Your task to perform on an android device: Where can I buy a nice beach blanket? Image 0: 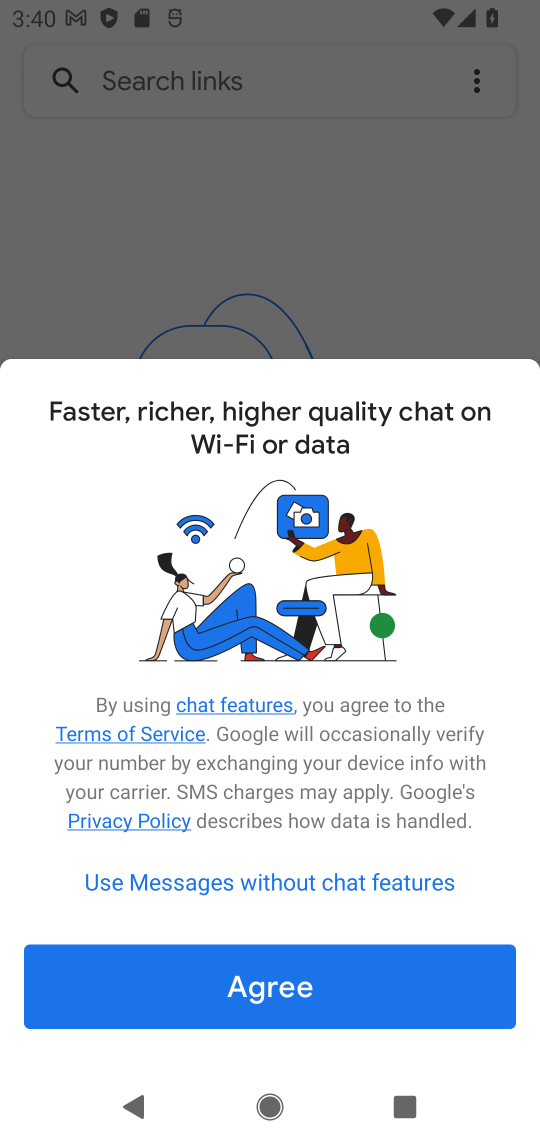
Step 0: press home button
Your task to perform on an android device: Where can I buy a nice beach blanket? Image 1: 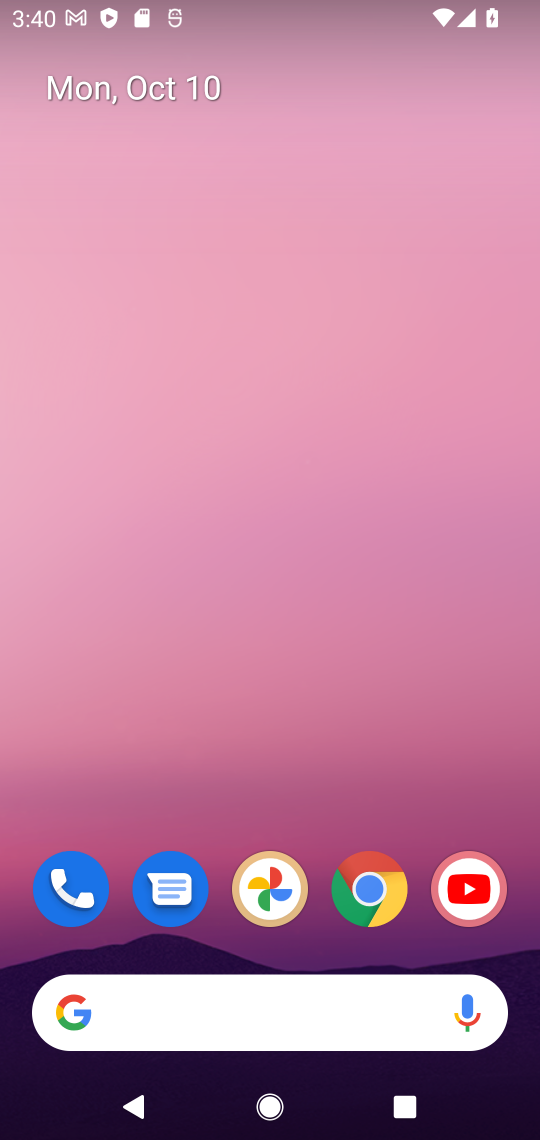
Step 1: click (369, 890)
Your task to perform on an android device: Where can I buy a nice beach blanket? Image 2: 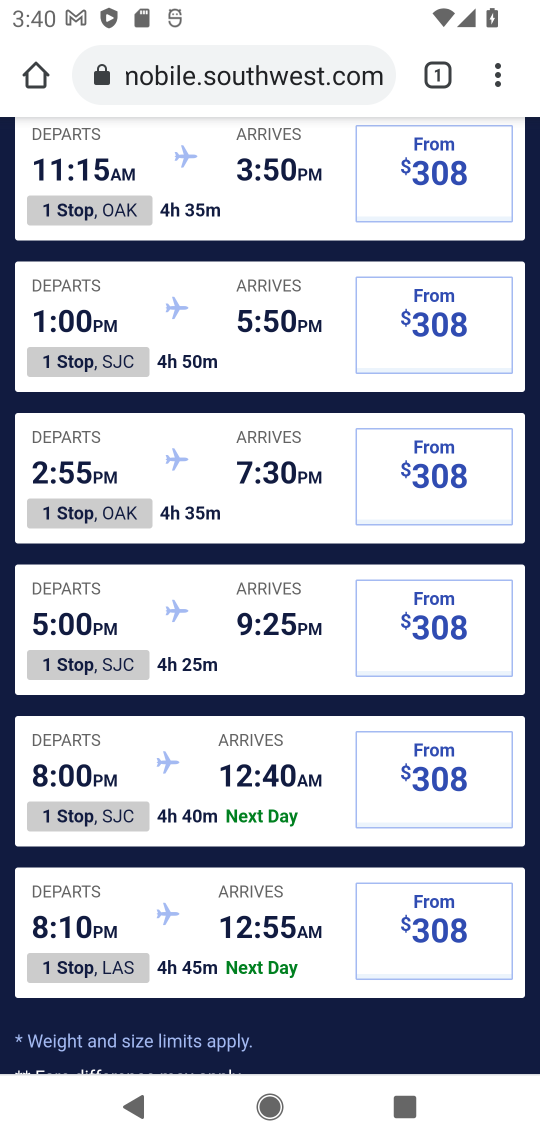
Step 2: click (207, 54)
Your task to perform on an android device: Where can I buy a nice beach blanket? Image 3: 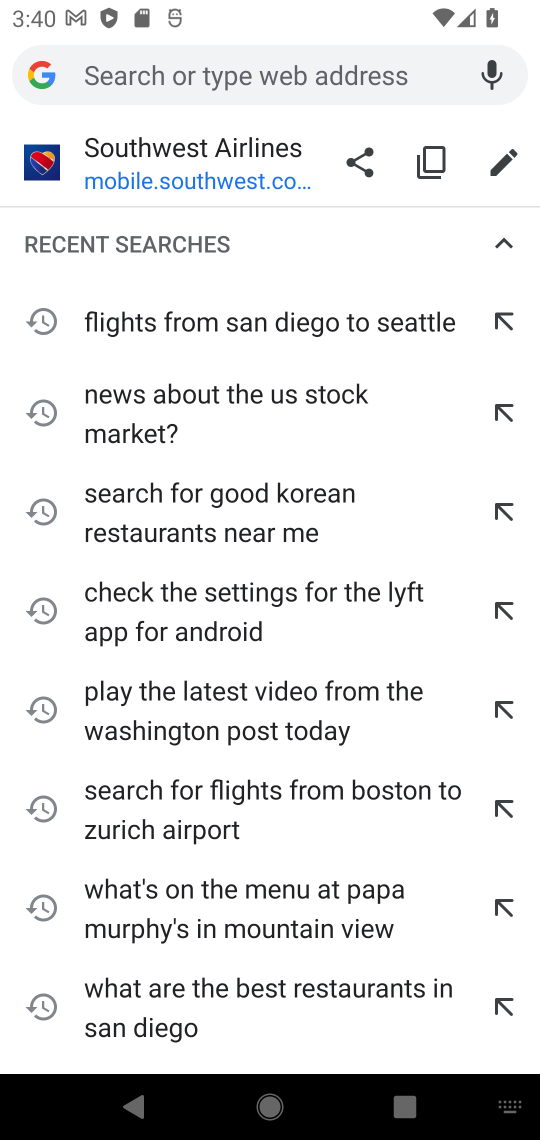
Step 3: type " nice beach blanket?"
Your task to perform on an android device: Where can I buy a nice beach blanket? Image 4: 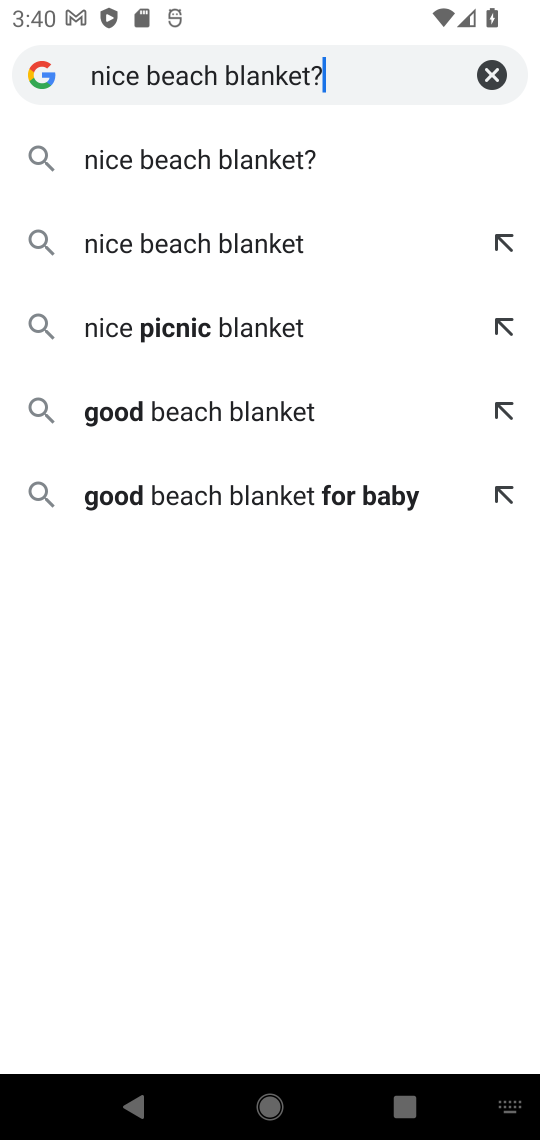
Step 4: click (138, 161)
Your task to perform on an android device: Where can I buy a nice beach blanket? Image 5: 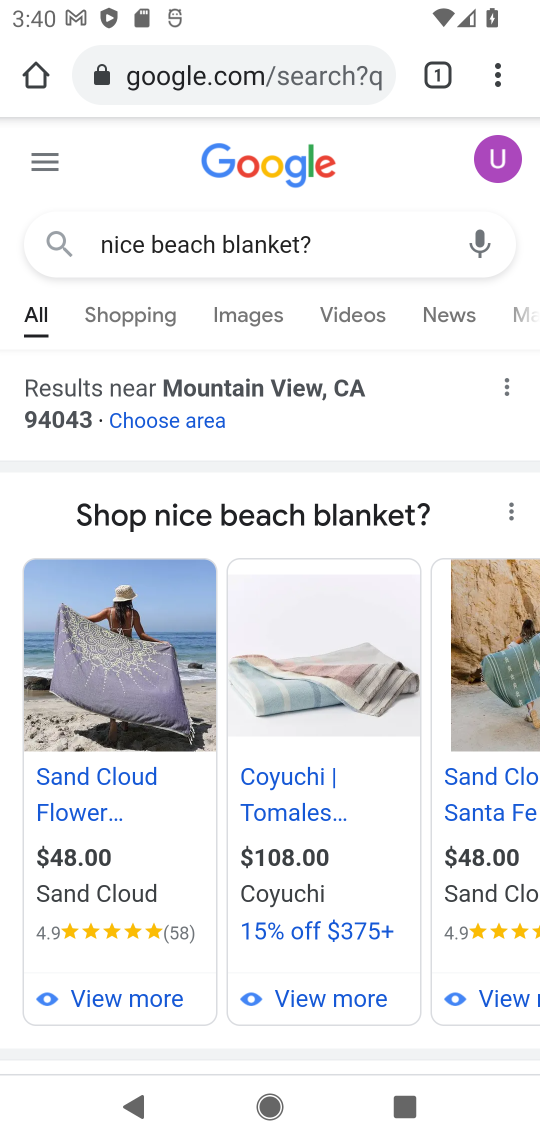
Step 5: drag from (220, 640) to (179, 73)
Your task to perform on an android device: Where can I buy a nice beach blanket? Image 6: 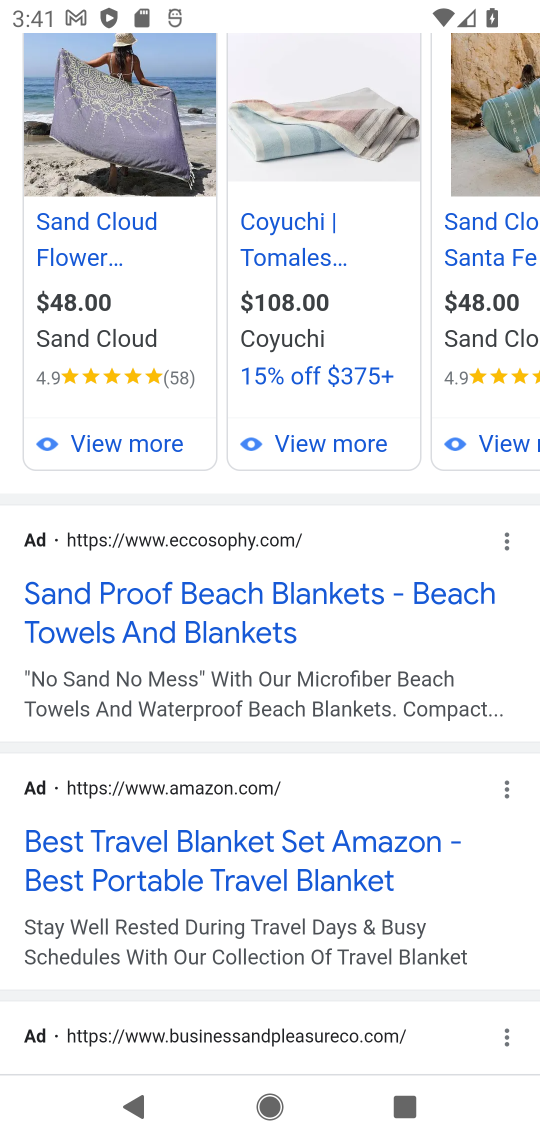
Step 6: drag from (272, 744) to (252, 179)
Your task to perform on an android device: Where can I buy a nice beach blanket? Image 7: 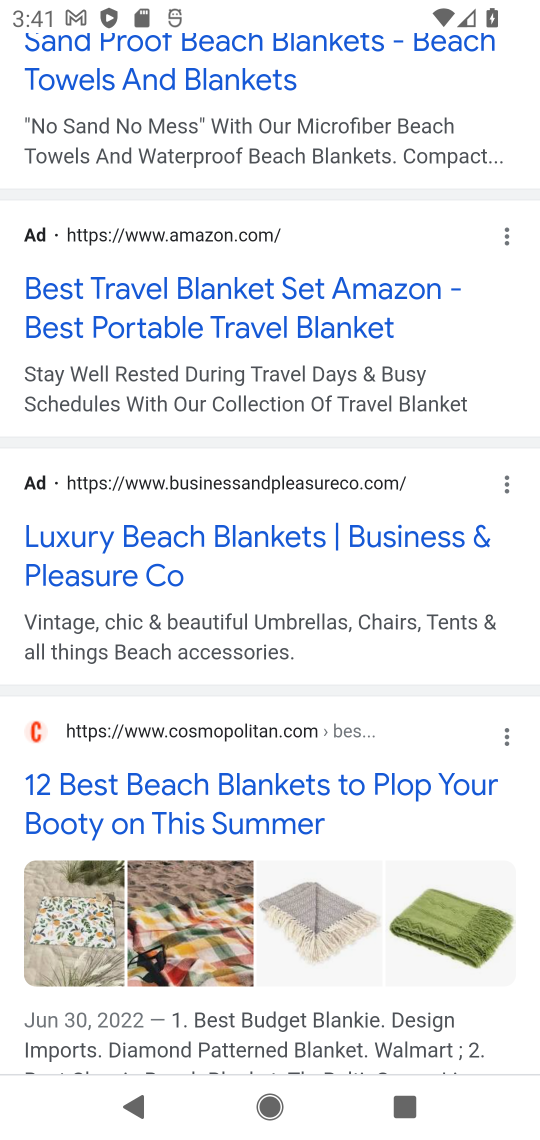
Step 7: drag from (9, 689) to (90, 70)
Your task to perform on an android device: Where can I buy a nice beach blanket? Image 8: 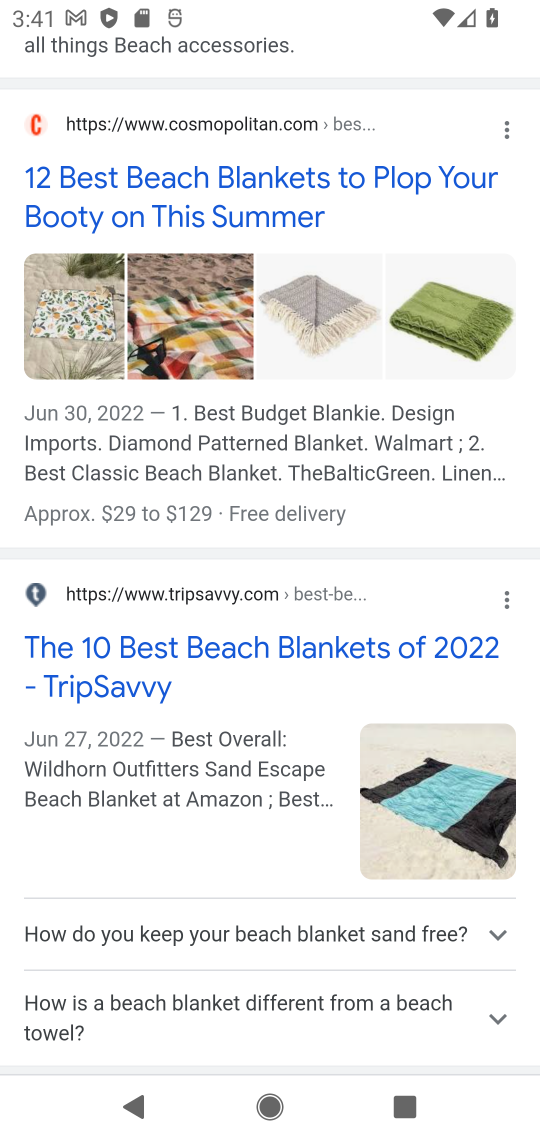
Step 8: click (125, 665)
Your task to perform on an android device: Where can I buy a nice beach blanket? Image 9: 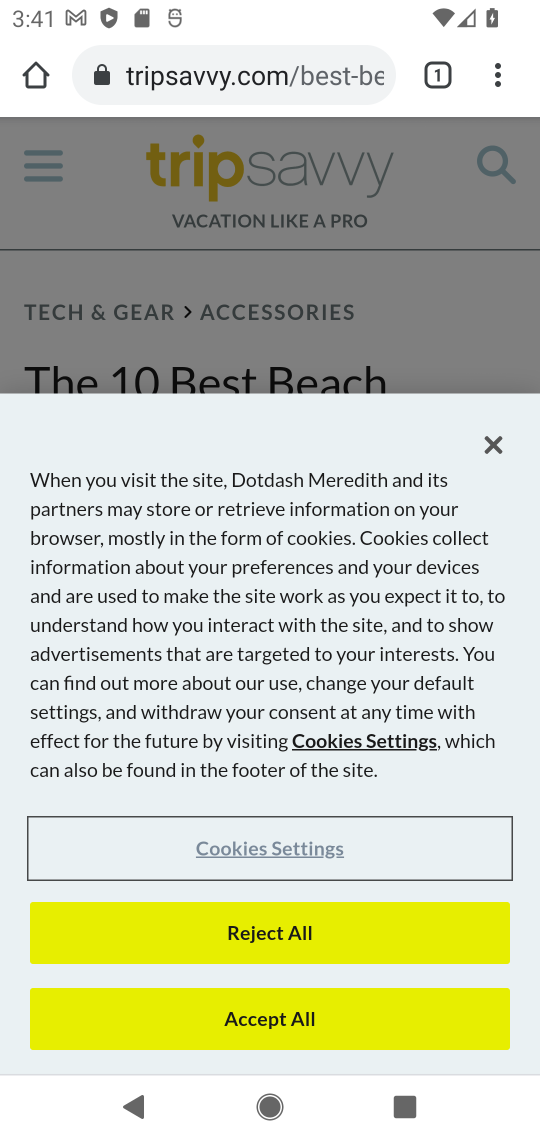
Step 9: click (273, 1018)
Your task to perform on an android device: Where can I buy a nice beach blanket? Image 10: 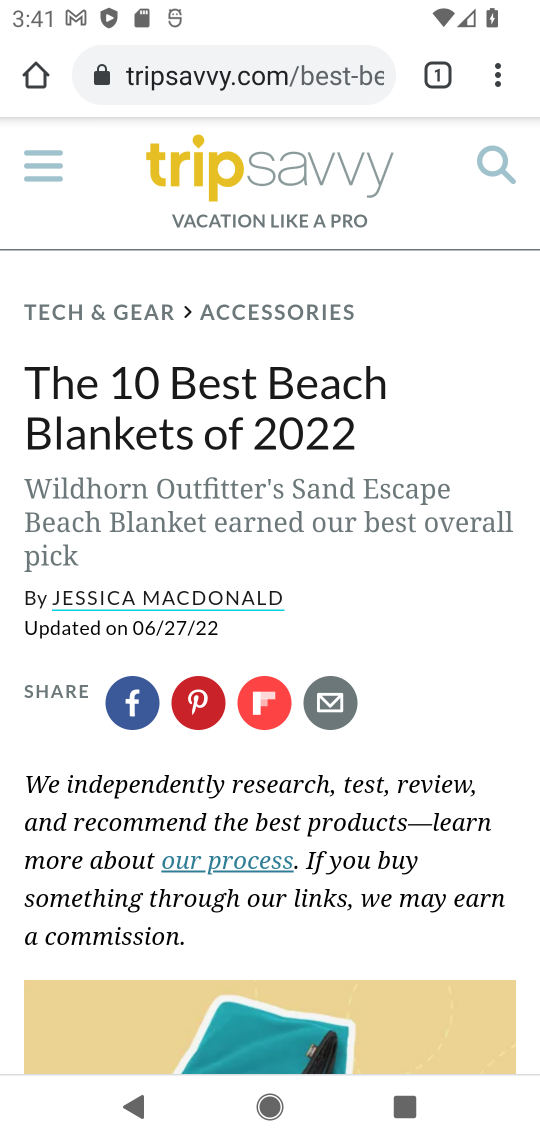
Step 10: press back button
Your task to perform on an android device: Where can I buy a nice beach blanket? Image 11: 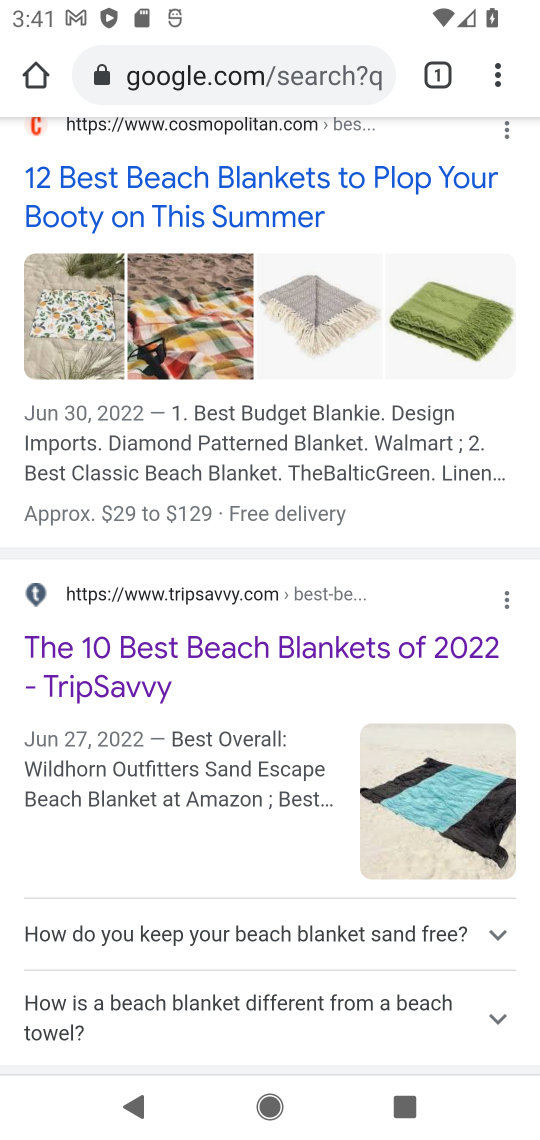
Step 11: drag from (301, 344) to (244, 831)
Your task to perform on an android device: Where can I buy a nice beach blanket? Image 12: 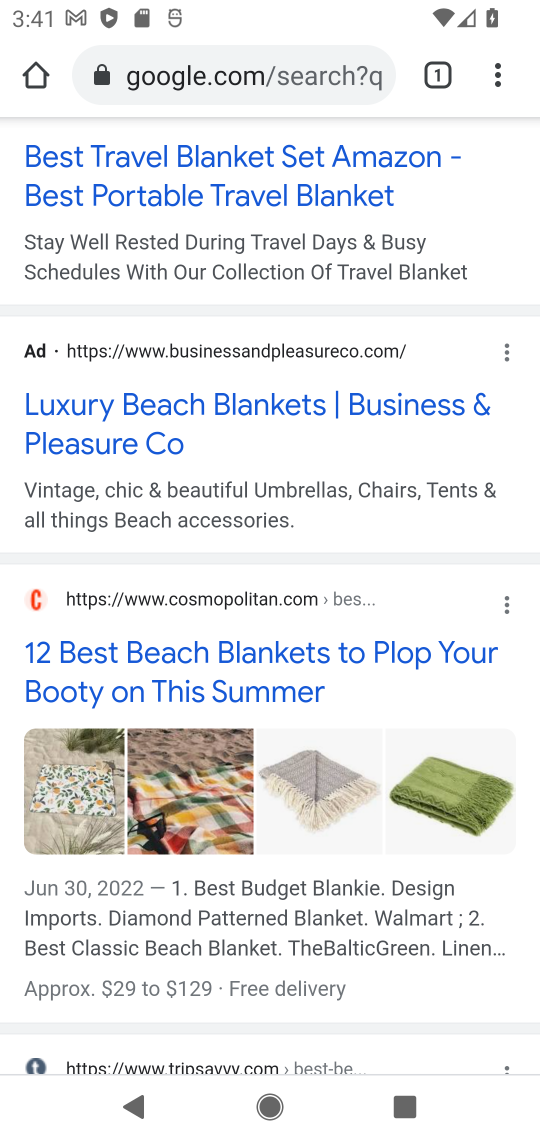
Step 12: drag from (252, 230) to (208, 772)
Your task to perform on an android device: Where can I buy a nice beach blanket? Image 13: 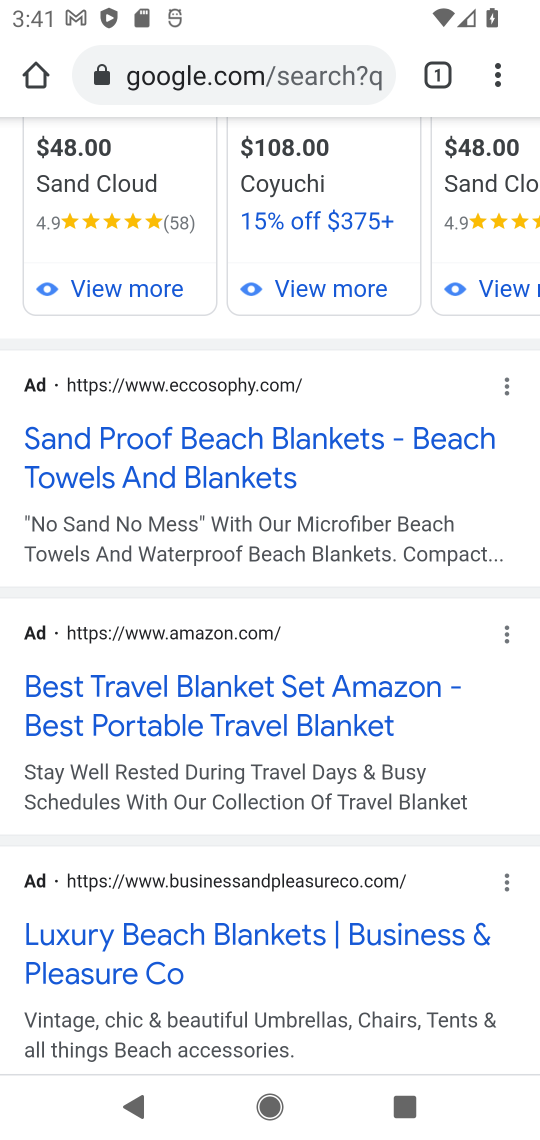
Step 13: drag from (199, 255) to (186, 762)
Your task to perform on an android device: Where can I buy a nice beach blanket? Image 14: 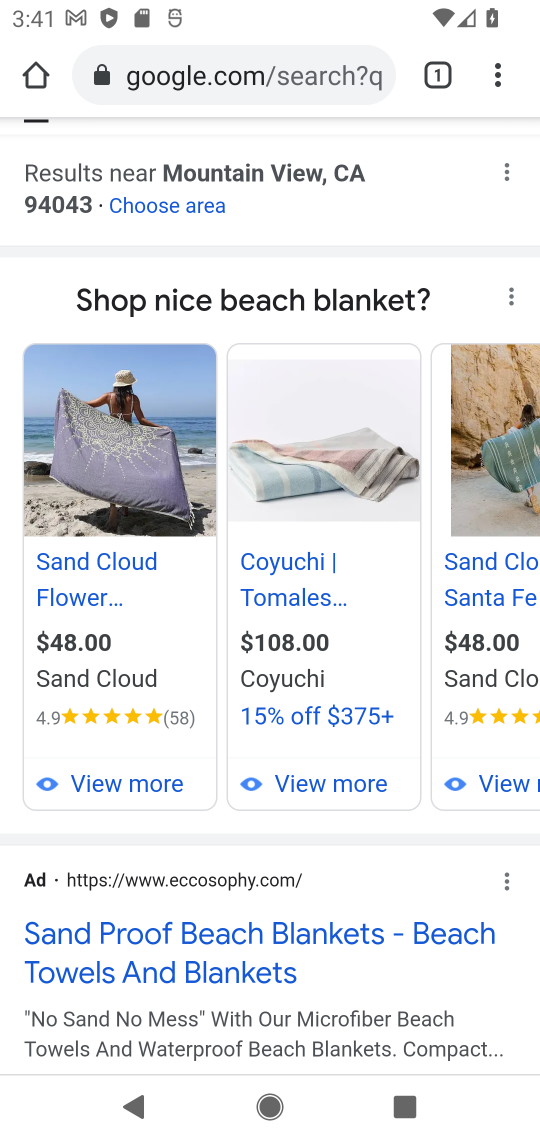
Step 14: click (65, 958)
Your task to perform on an android device: Where can I buy a nice beach blanket? Image 15: 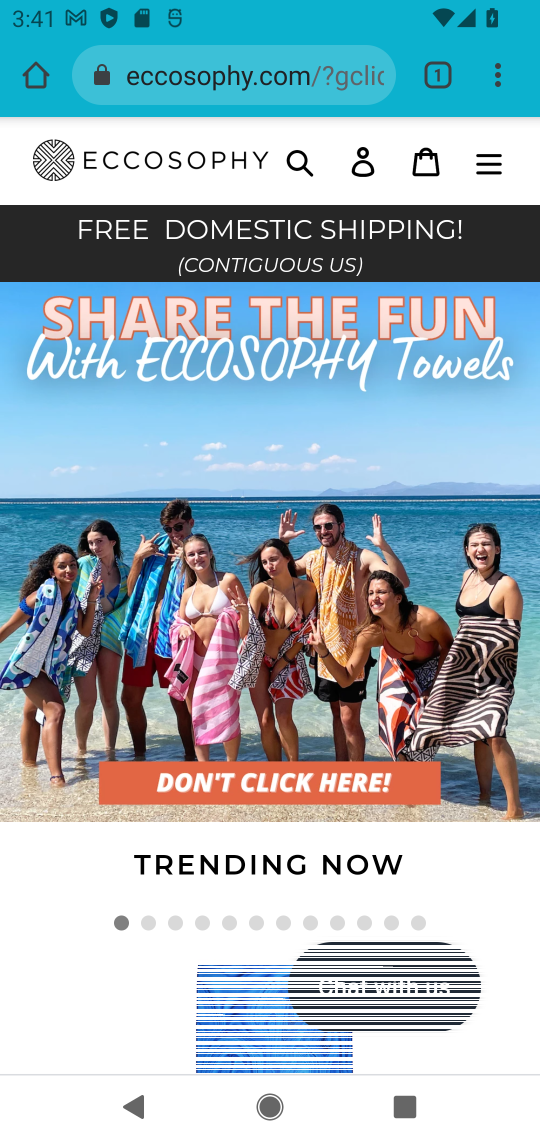
Step 15: drag from (427, 862) to (388, 319)
Your task to perform on an android device: Where can I buy a nice beach blanket? Image 16: 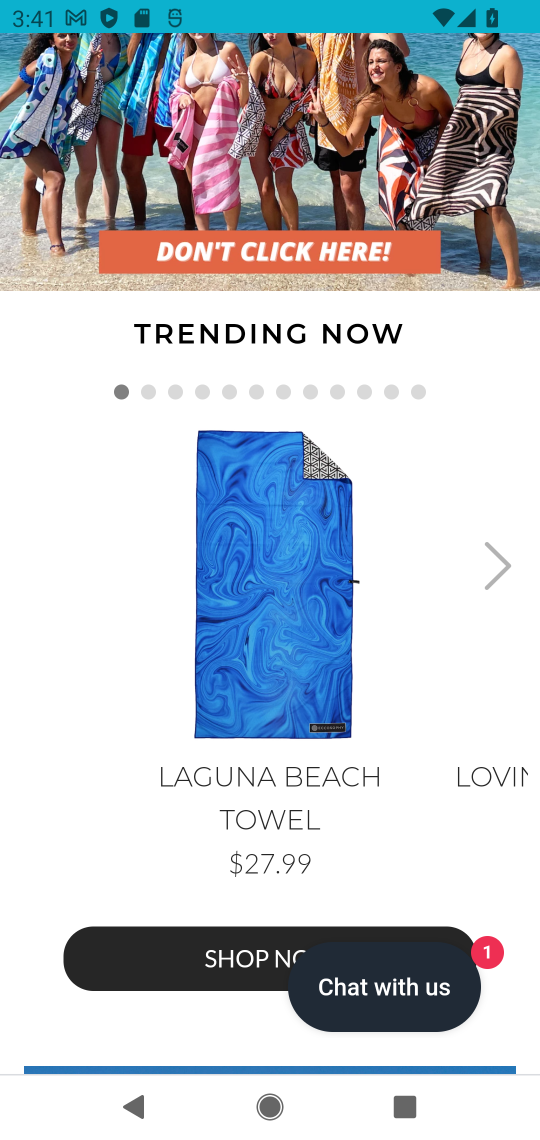
Step 16: click (517, 562)
Your task to perform on an android device: Where can I buy a nice beach blanket? Image 17: 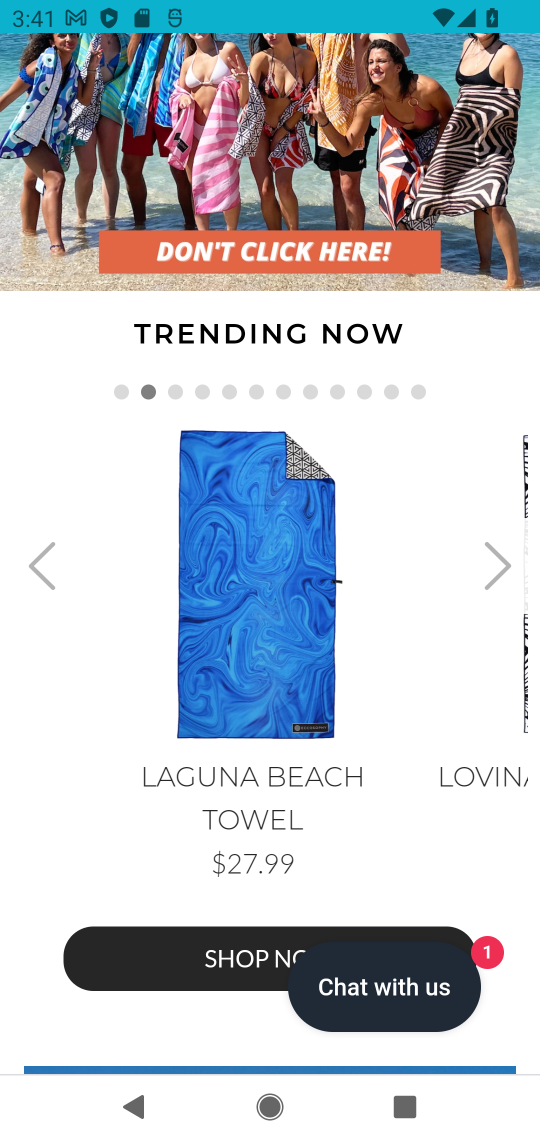
Step 17: click (491, 575)
Your task to perform on an android device: Where can I buy a nice beach blanket? Image 18: 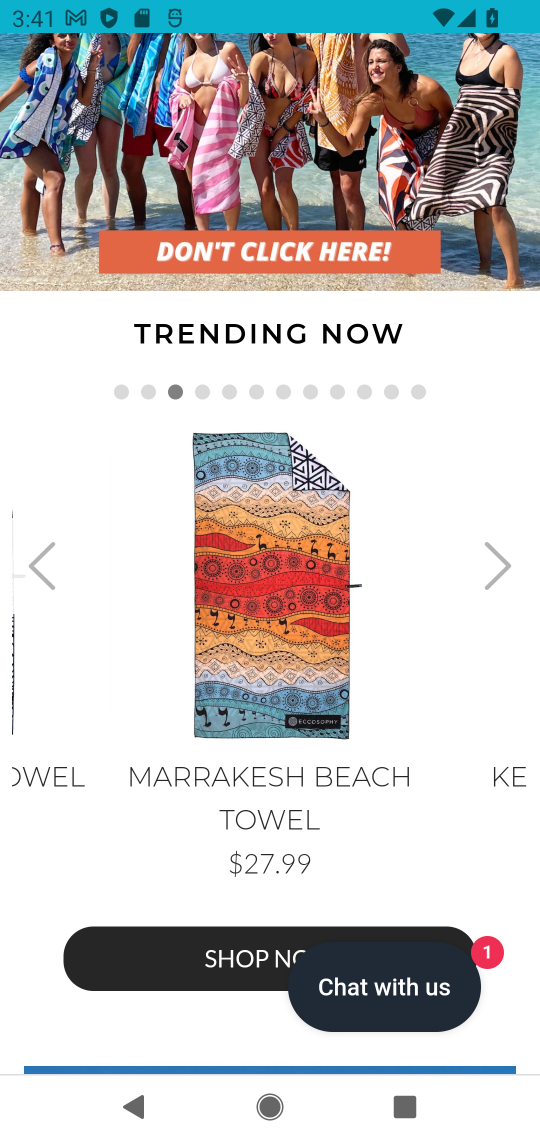
Step 18: click (491, 575)
Your task to perform on an android device: Where can I buy a nice beach blanket? Image 19: 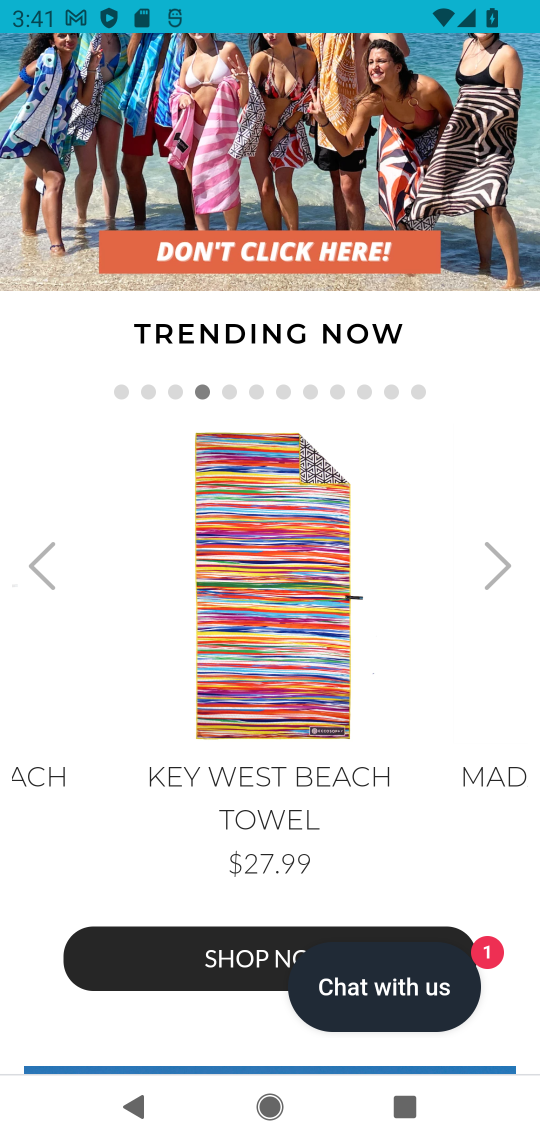
Step 19: click (491, 575)
Your task to perform on an android device: Where can I buy a nice beach blanket? Image 20: 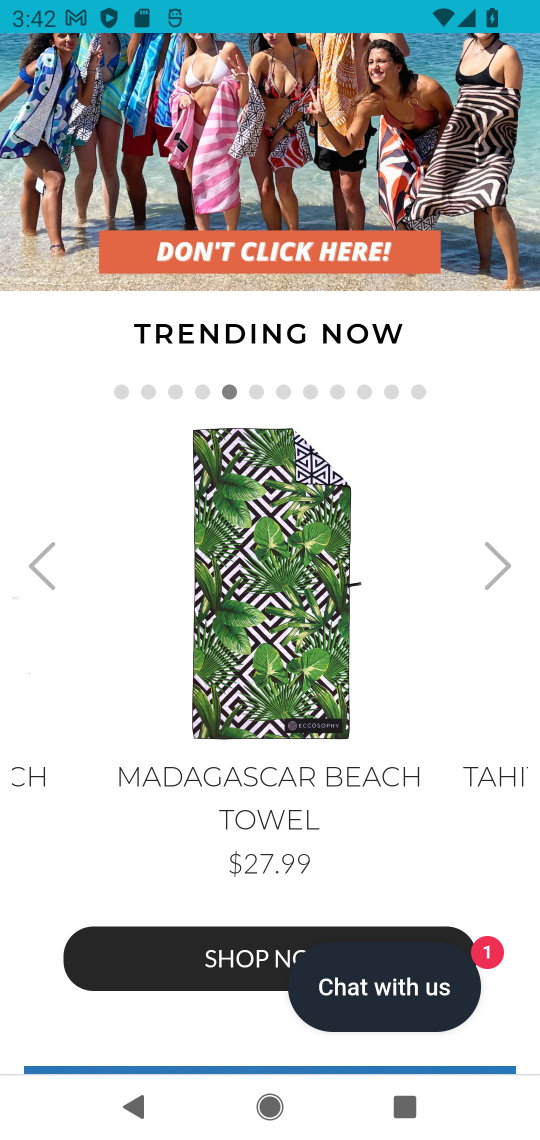
Step 20: task complete